Your task to perform on an android device: toggle priority inbox in the gmail app Image 0: 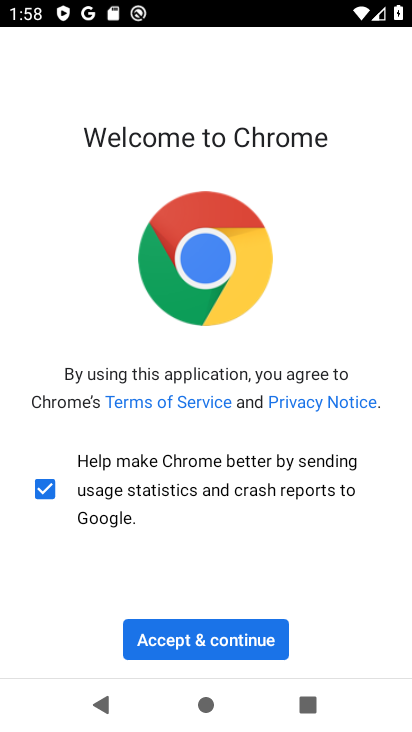
Step 0: press home button
Your task to perform on an android device: toggle priority inbox in the gmail app Image 1: 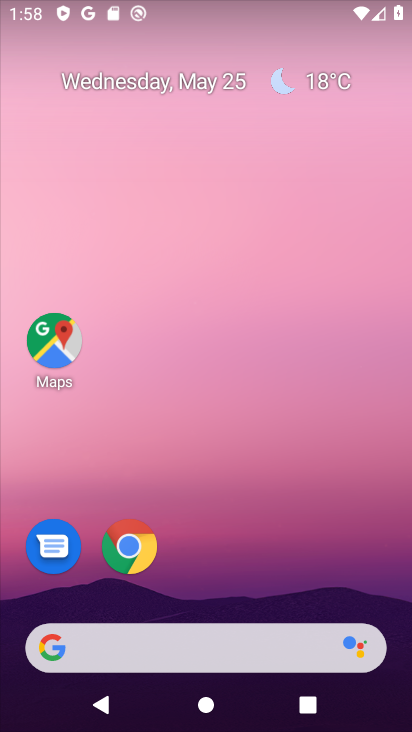
Step 1: drag from (260, 554) to (276, 6)
Your task to perform on an android device: toggle priority inbox in the gmail app Image 2: 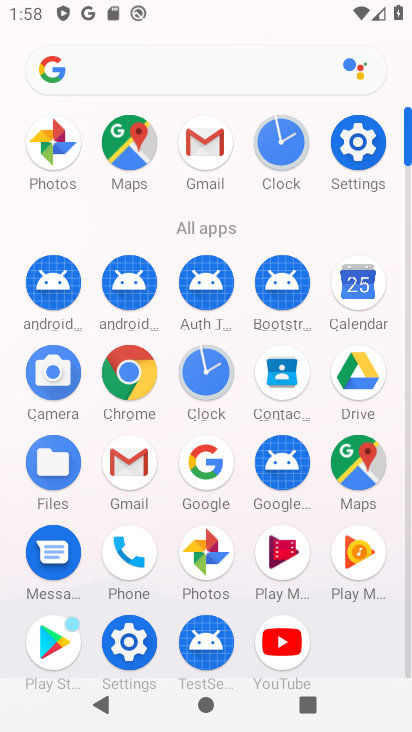
Step 2: click (122, 469)
Your task to perform on an android device: toggle priority inbox in the gmail app Image 3: 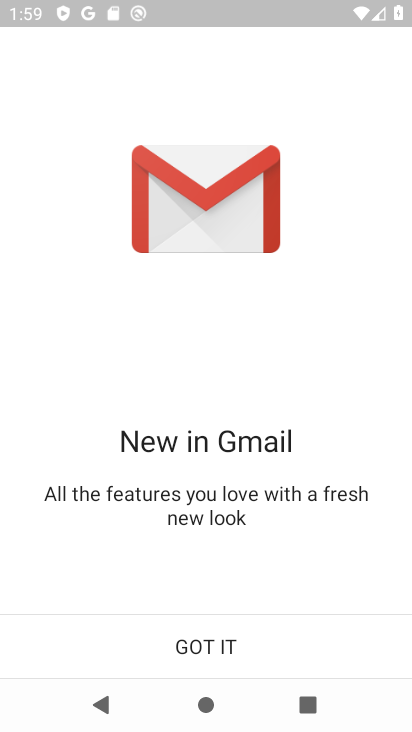
Step 3: click (218, 649)
Your task to perform on an android device: toggle priority inbox in the gmail app Image 4: 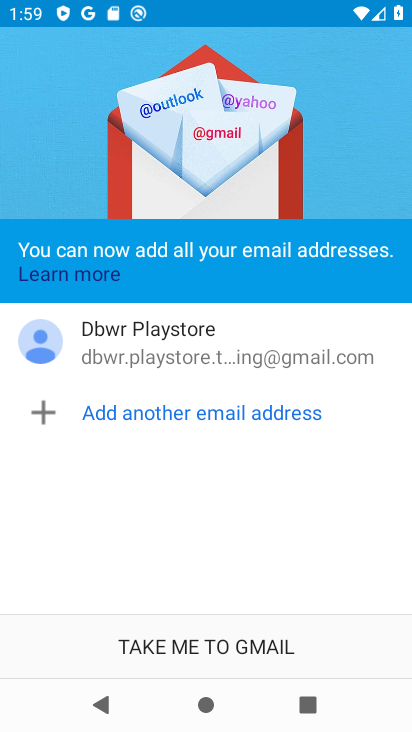
Step 4: click (219, 649)
Your task to perform on an android device: toggle priority inbox in the gmail app Image 5: 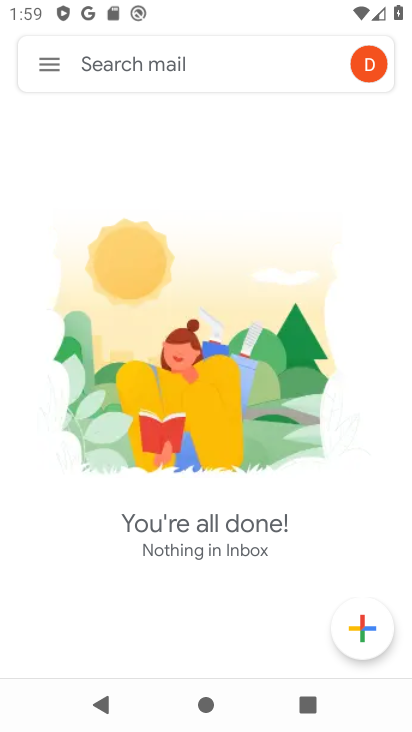
Step 5: click (43, 61)
Your task to perform on an android device: toggle priority inbox in the gmail app Image 6: 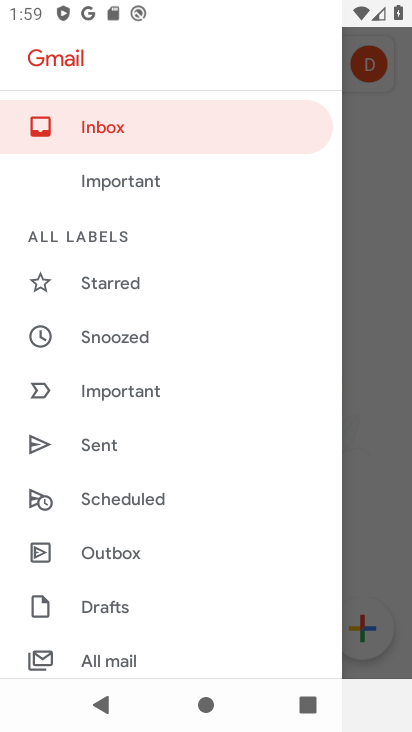
Step 6: drag from (190, 414) to (190, 216)
Your task to perform on an android device: toggle priority inbox in the gmail app Image 7: 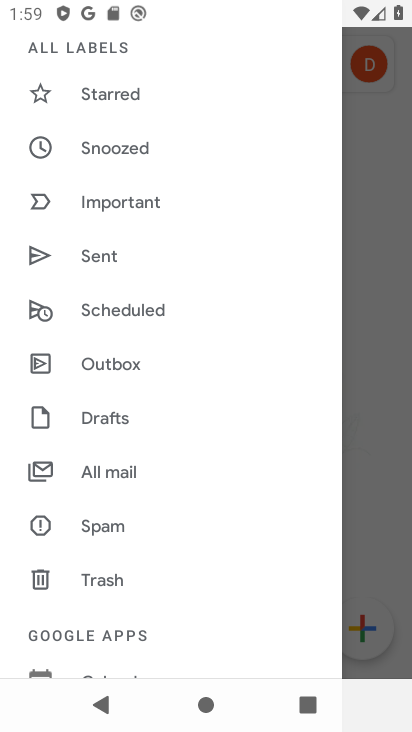
Step 7: drag from (119, 484) to (145, 120)
Your task to perform on an android device: toggle priority inbox in the gmail app Image 8: 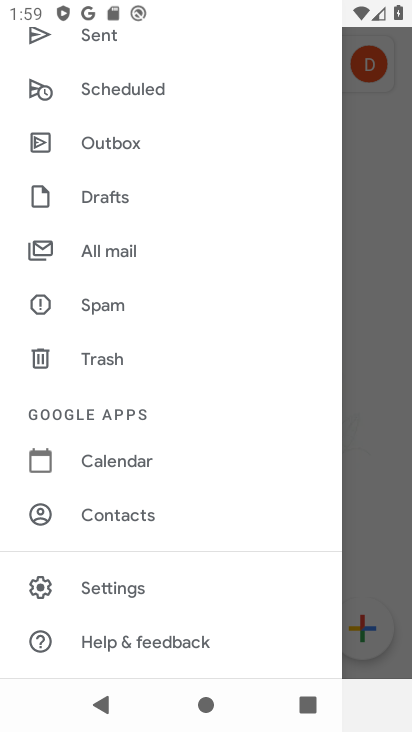
Step 8: drag from (158, 567) to (202, 167)
Your task to perform on an android device: toggle priority inbox in the gmail app Image 9: 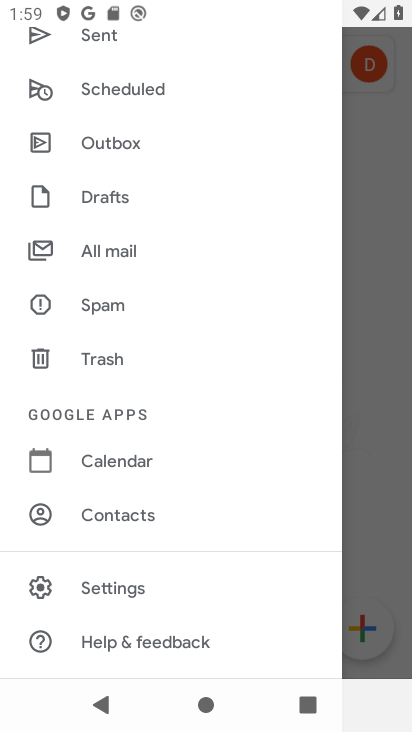
Step 9: click (102, 596)
Your task to perform on an android device: toggle priority inbox in the gmail app Image 10: 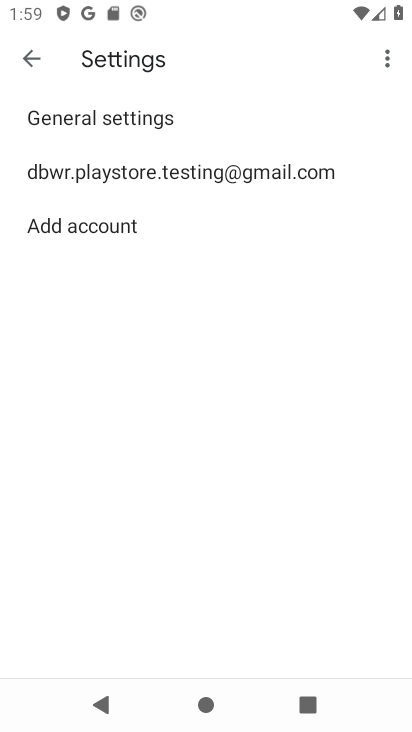
Step 10: click (161, 177)
Your task to perform on an android device: toggle priority inbox in the gmail app Image 11: 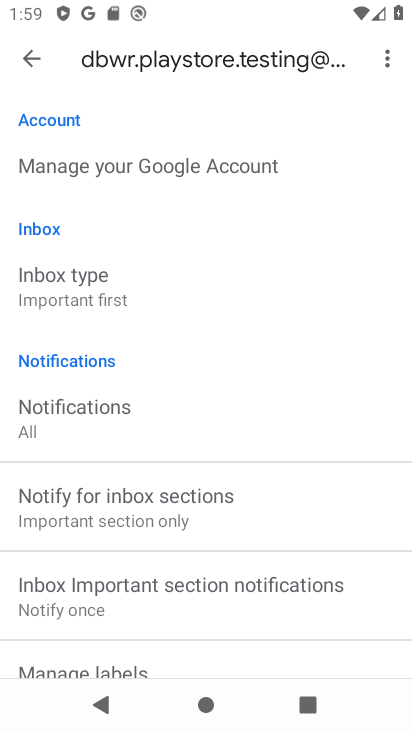
Step 11: click (85, 288)
Your task to perform on an android device: toggle priority inbox in the gmail app Image 12: 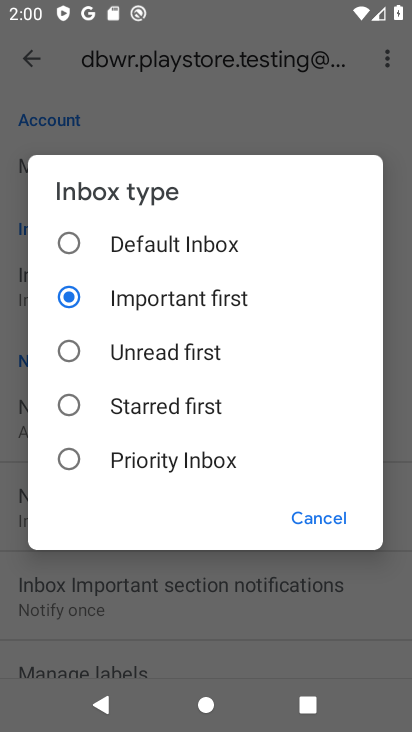
Step 12: click (171, 467)
Your task to perform on an android device: toggle priority inbox in the gmail app Image 13: 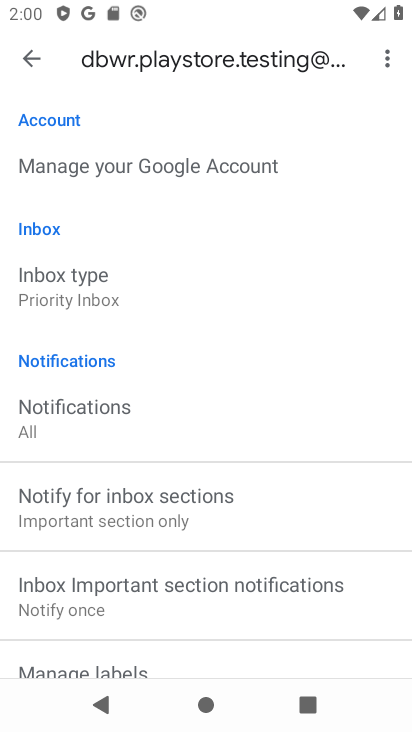
Step 13: task complete